Your task to perform on an android device: Open network settings Image 0: 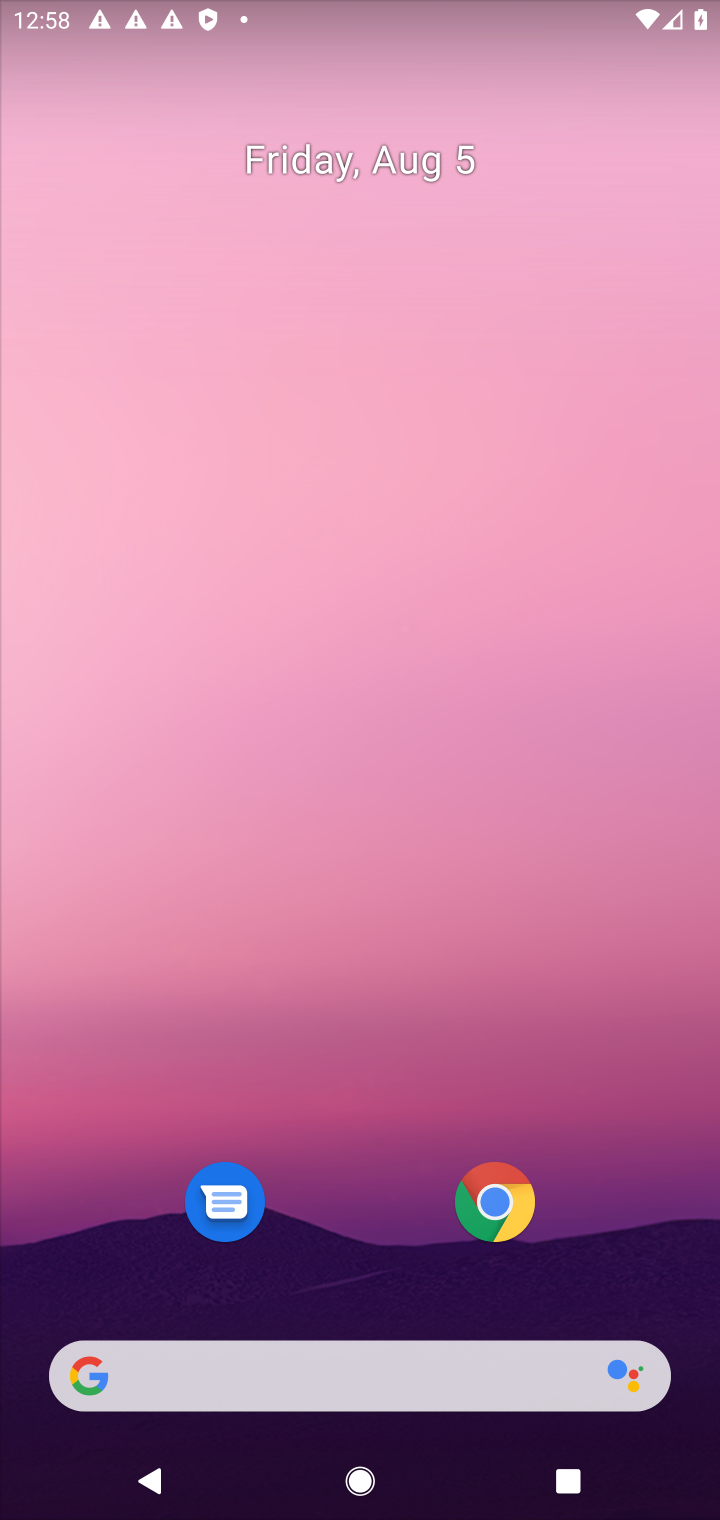
Step 0: drag from (612, 659) to (666, 74)
Your task to perform on an android device: Open network settings Image 1: 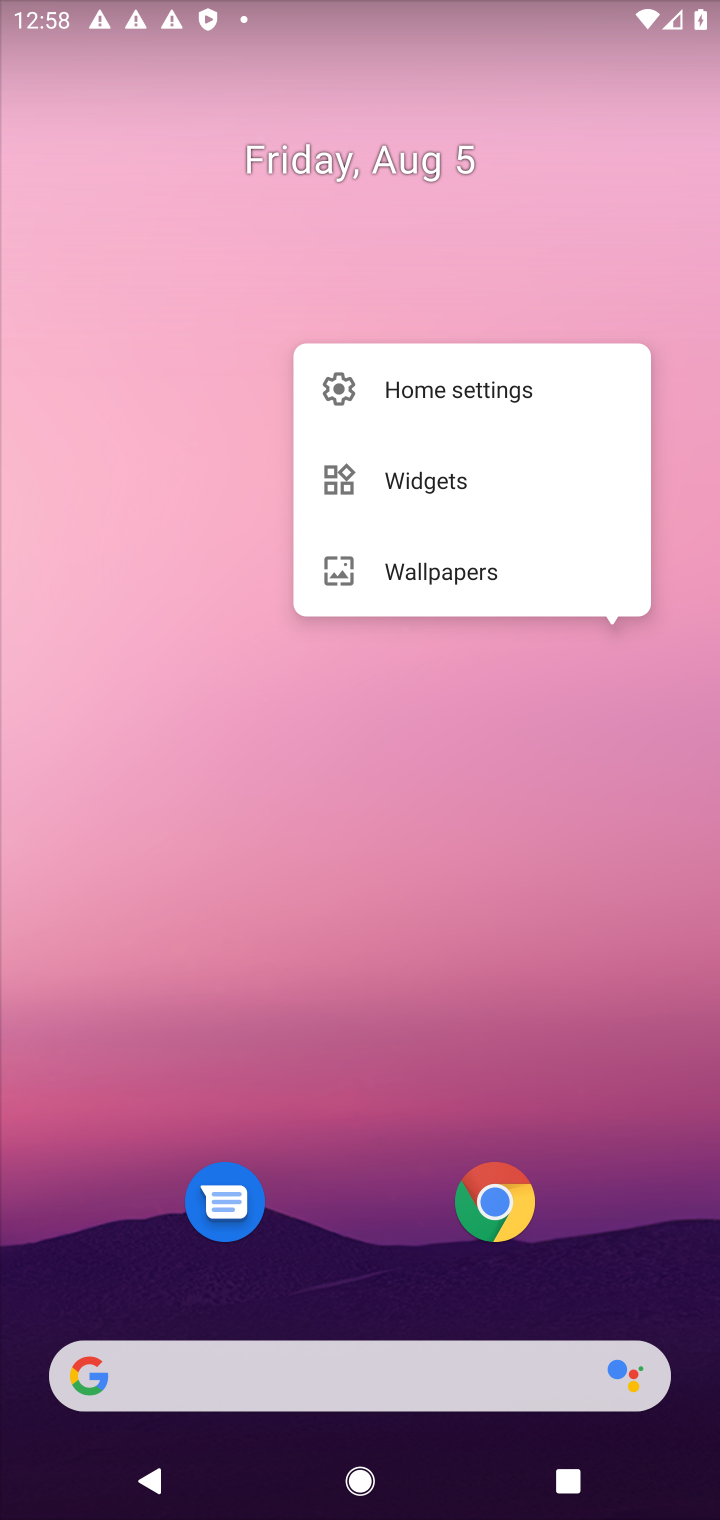
Step 1: click (269, 798)
Your task to perform on an android device: Open network settings Image 2: 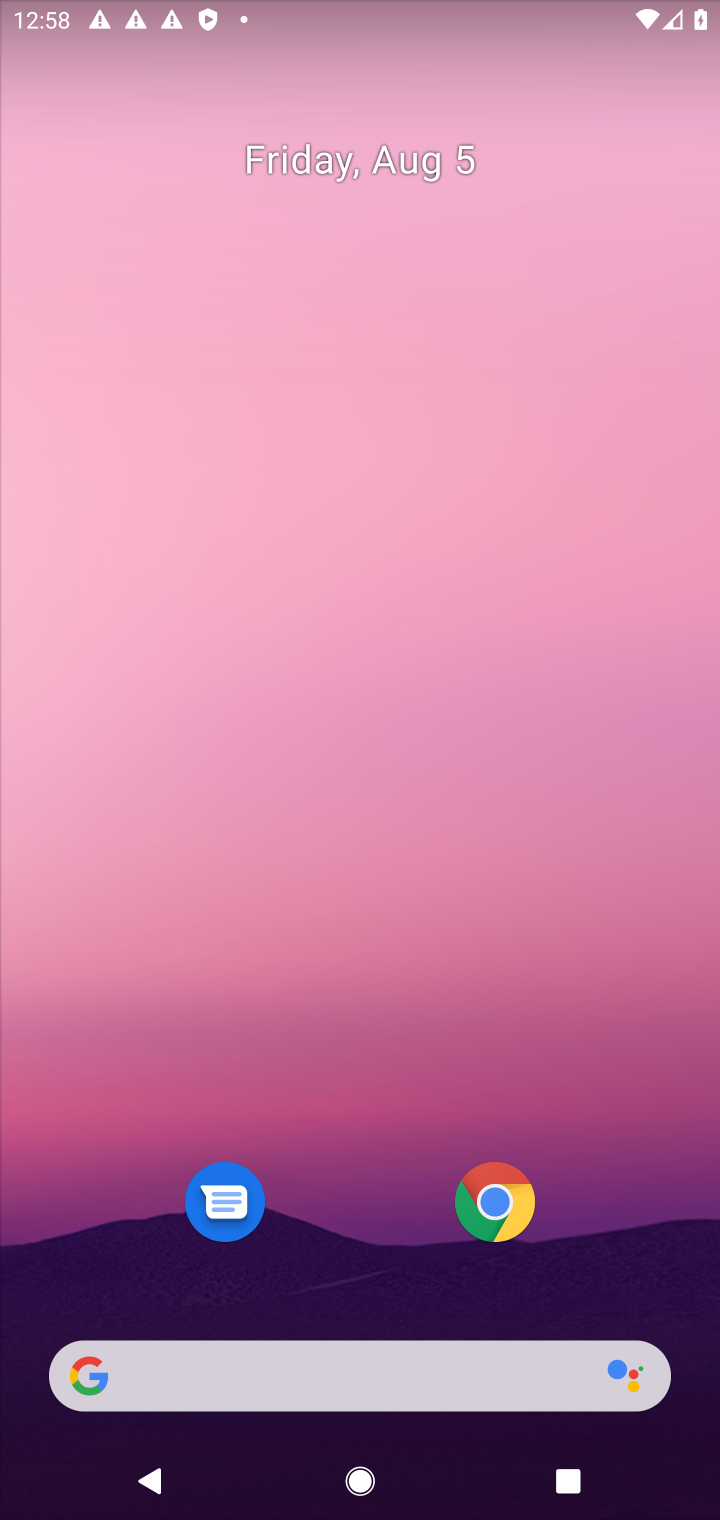
Step 2: click (269, 782)
Your task to perform on an android device: Open network settings Image 3: 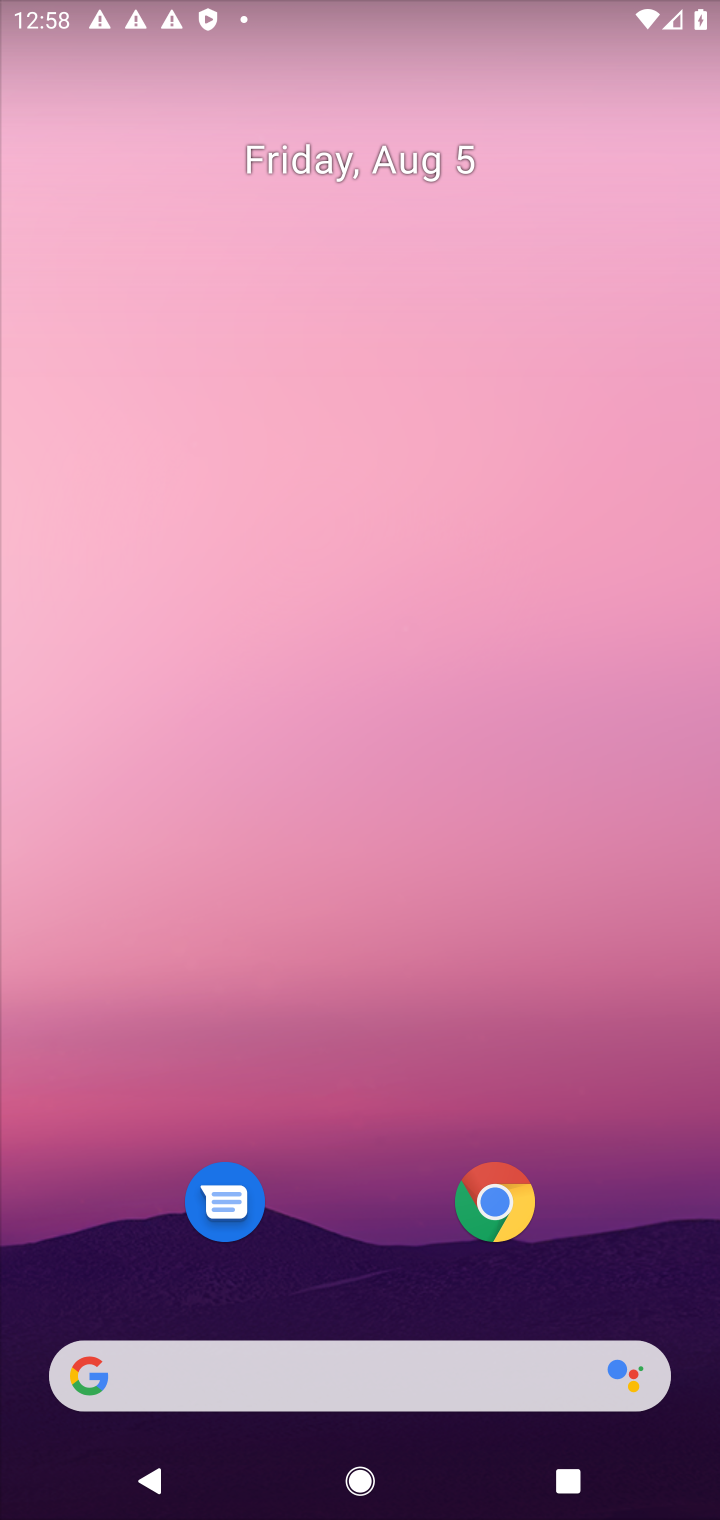
Step 3: drag from (414, 580) to (480, 92)
Your task to perform on an android device: Open network settings Image 4: 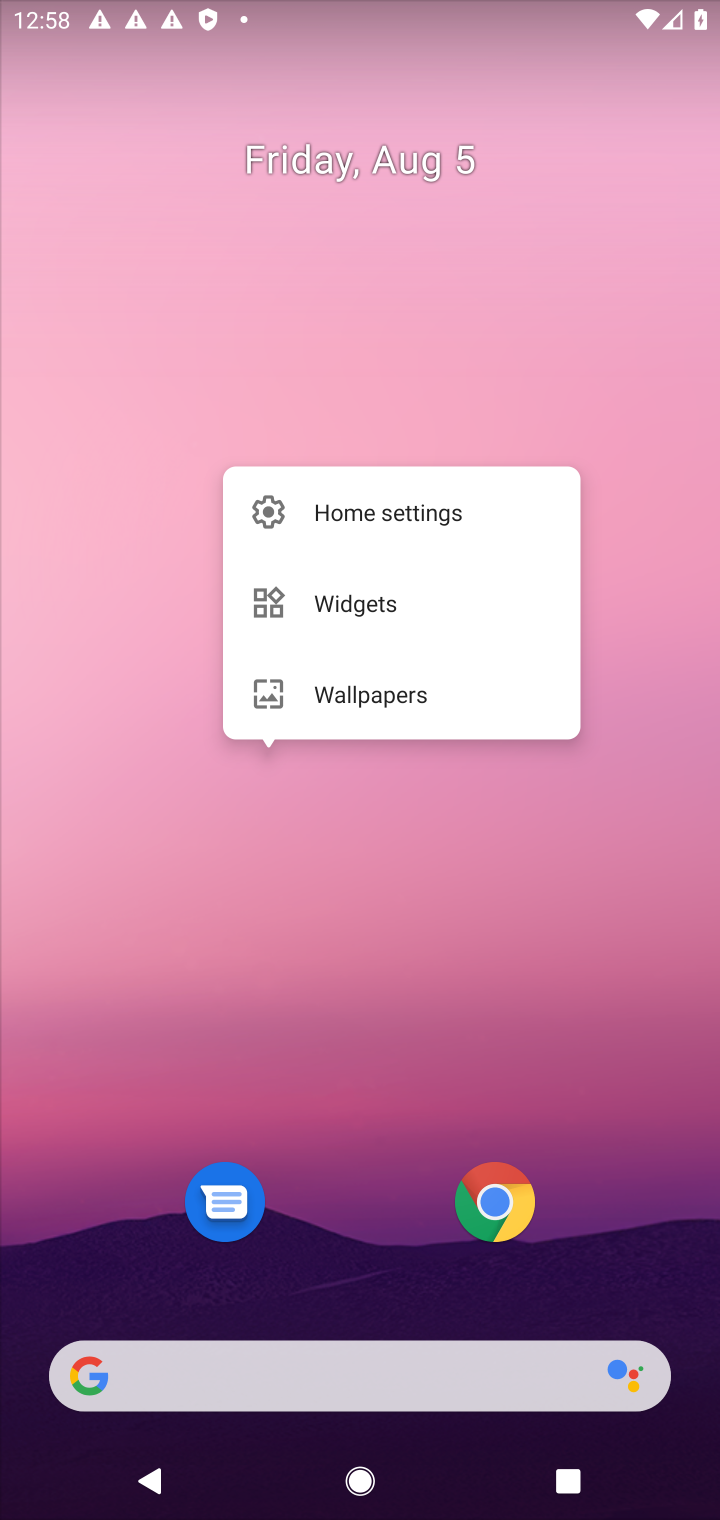
Step 4: click (61, 514)
Your task to perform on an android device: Open network settings Image 5: 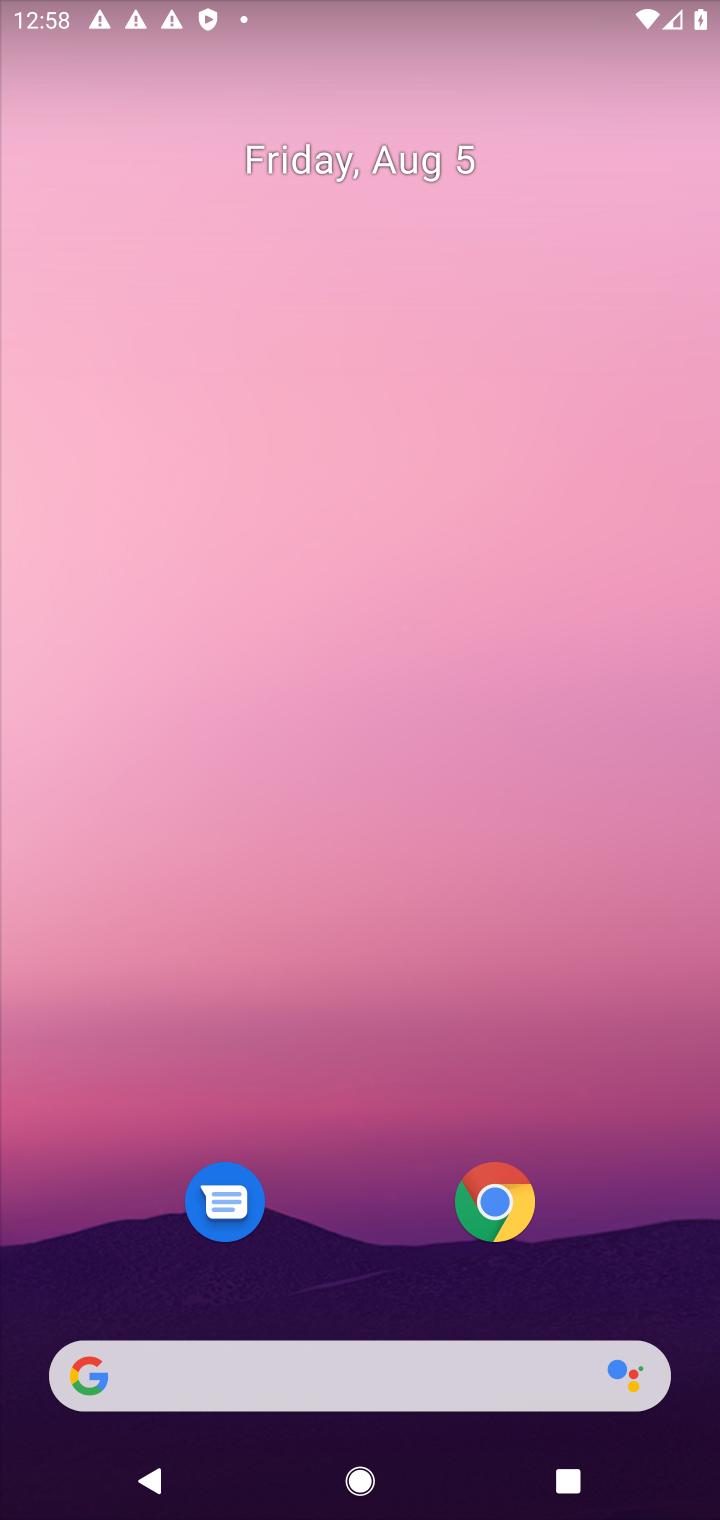
Step 5: drag from (382, 1311) to (497, 264)
Your task to perform on an android device: Open network settings Image 6: 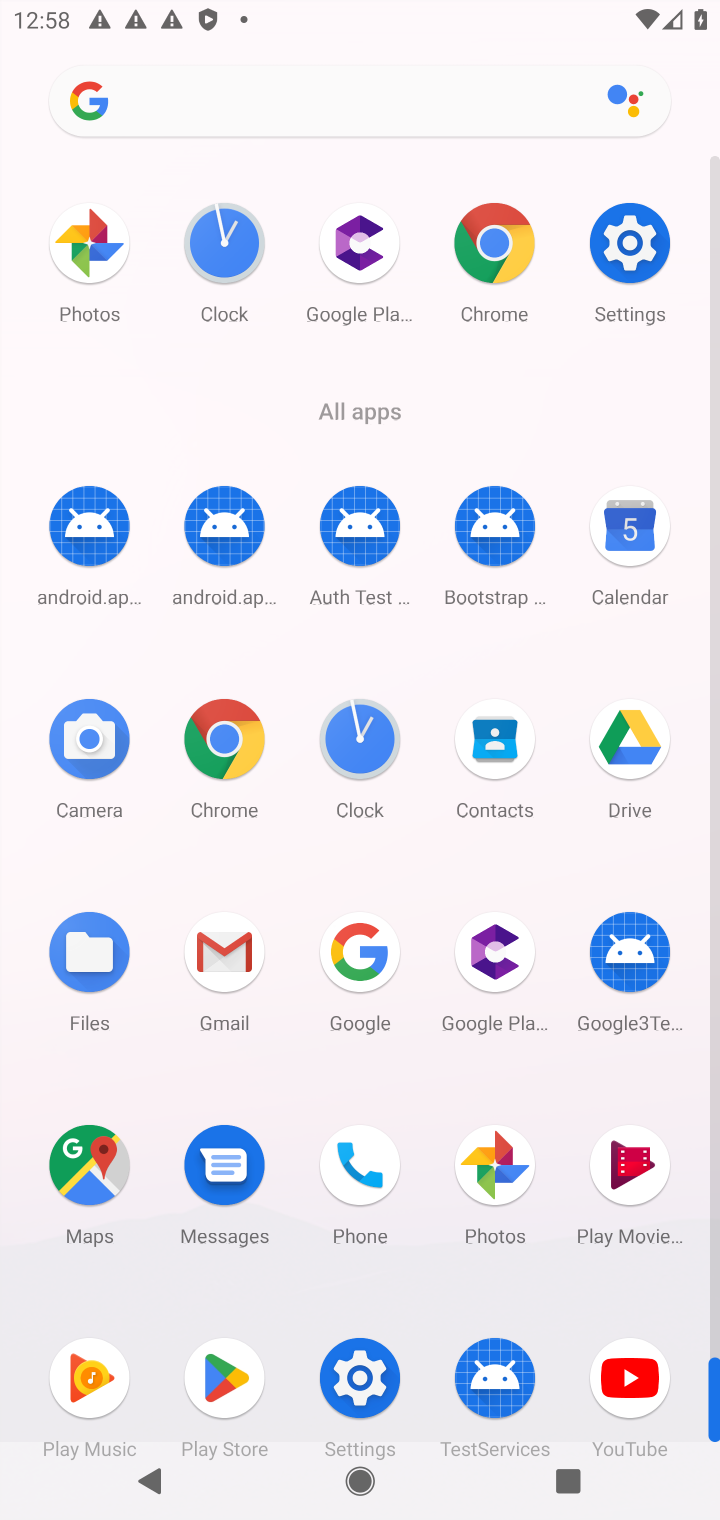
Step 6: click (371, 1366)
Your task to perform on an android device: Open network settings Image 7: 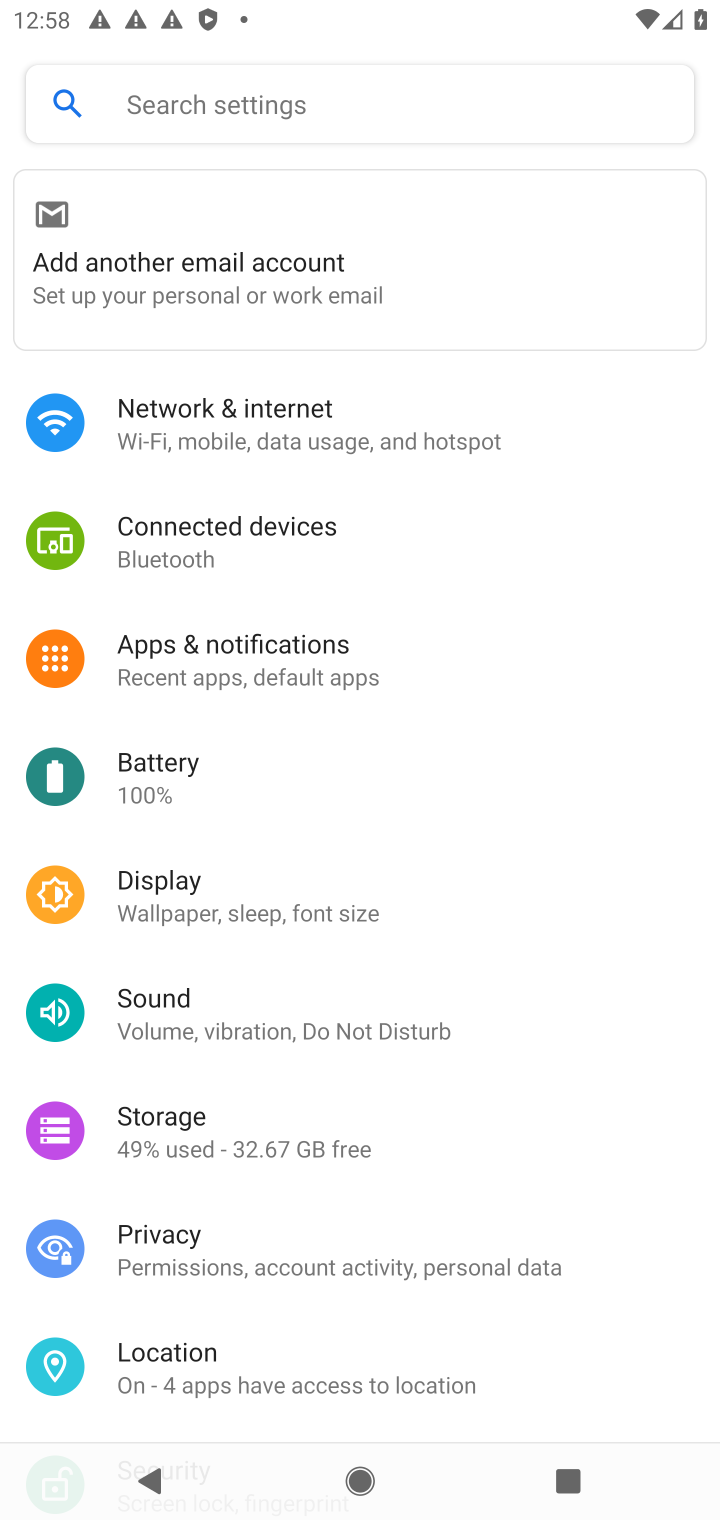
Step 7: click (201, 409)
Your task to perform on an android device: Open network settings Image 8: 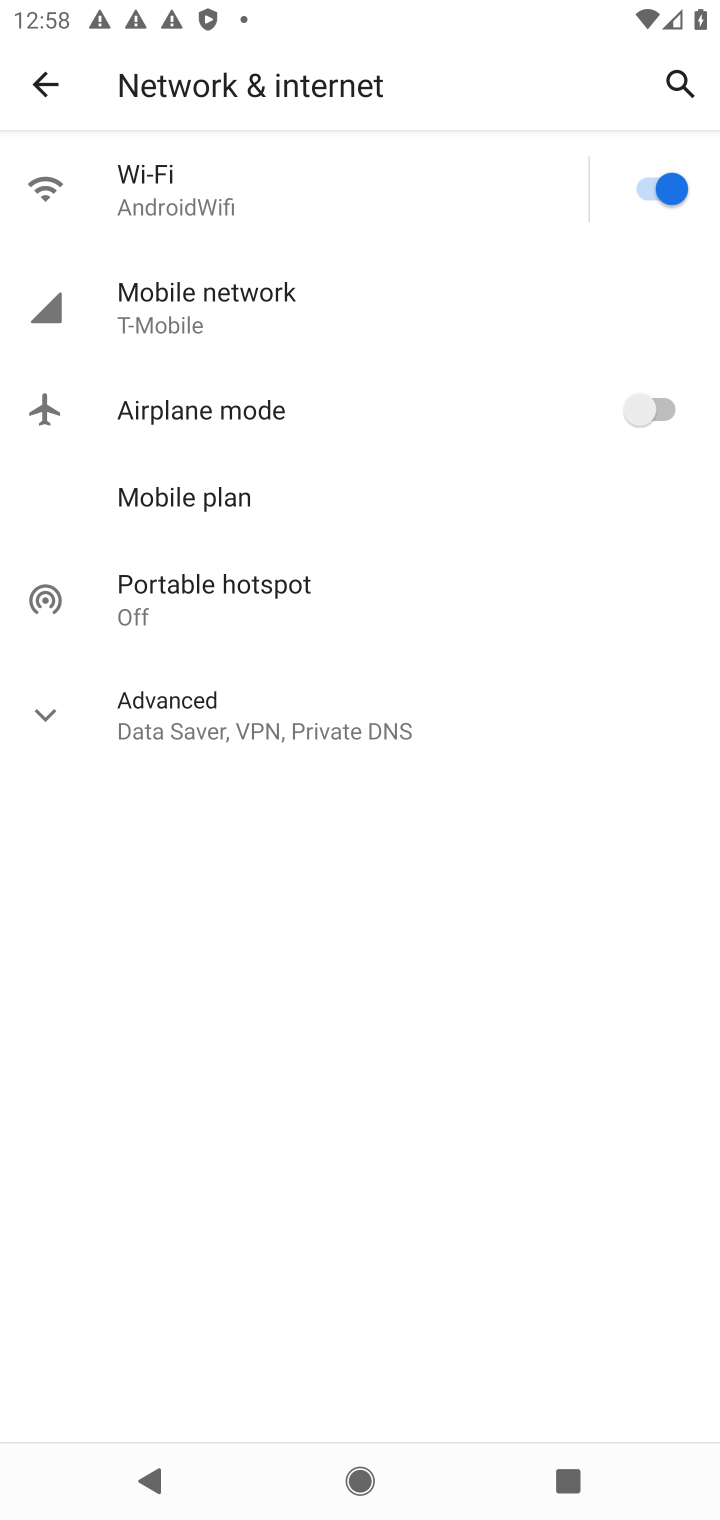
Step 8: task complete